Your task to perform on an android device: check data usage Image 0: 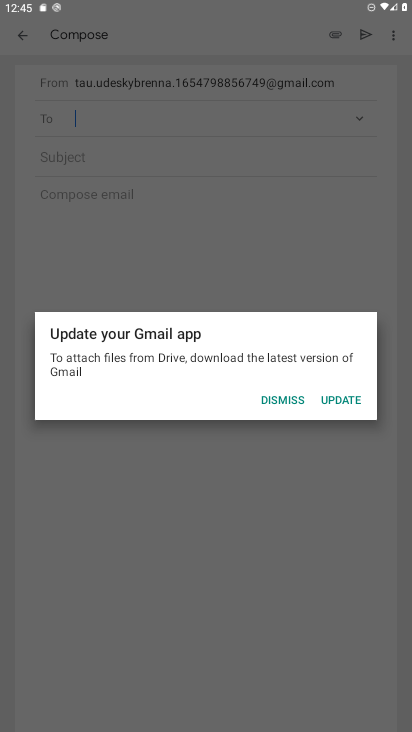
Step 0: press home button
Your task to perform on an android device: check data usage Image 1: 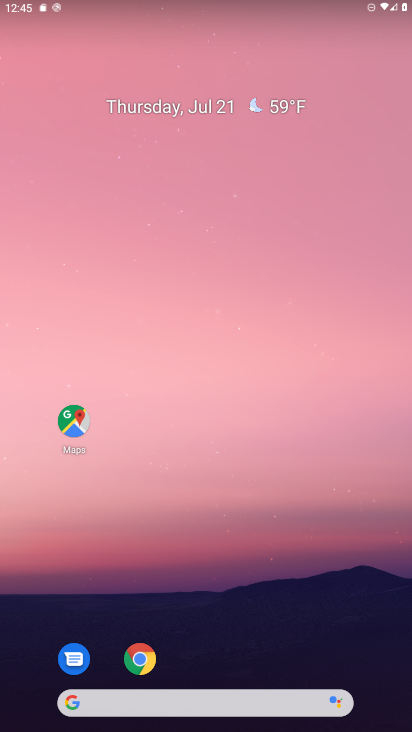
Step 1: drag from (22, 678) to (336, 105)
Your task to perform on an android device: check data usage Image 2: 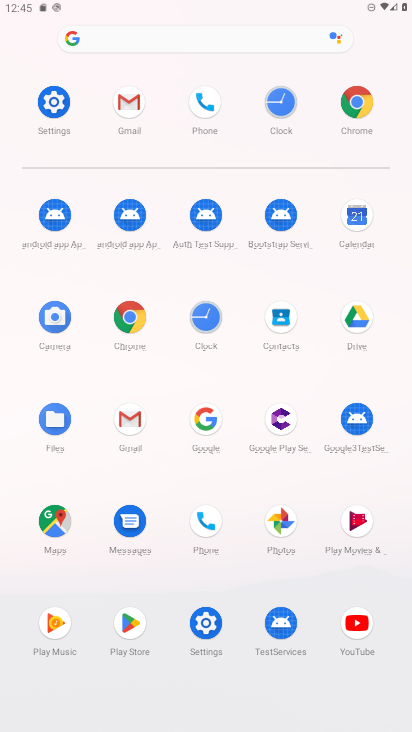
Step 2: click (59, 122)
Your task to perform on an android device: check data usage Image 3: 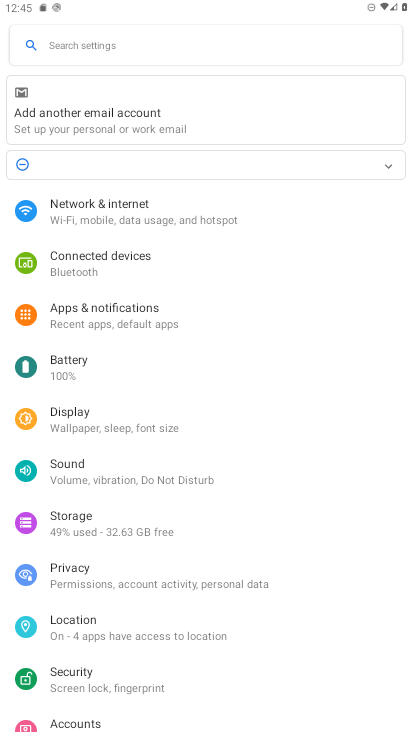
Step 3: click (145, 212)
Your task to perform on an android device: check data usage Image 4: 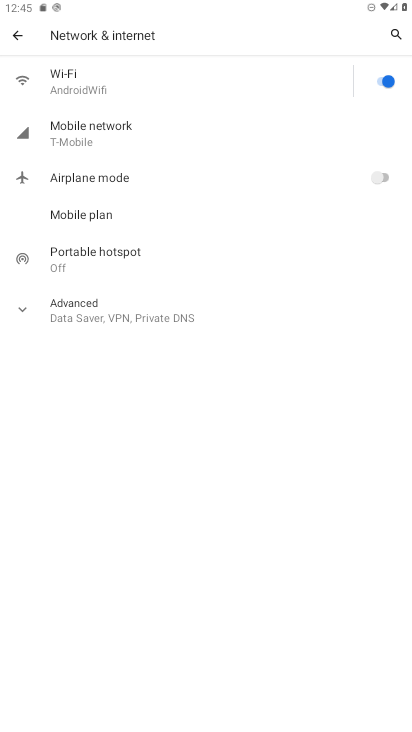
Step 4: click (122, 139)
Your task to perform on an android device: check data usage Image 5: 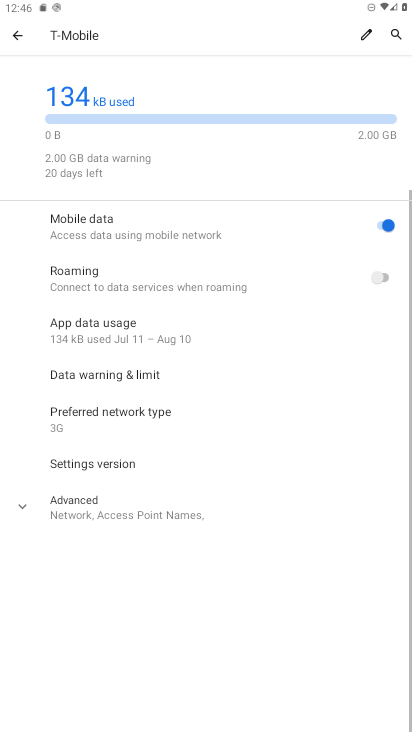
Step 5: click (131, 120)
Your task to perform on an android device: check data usage Image 6: 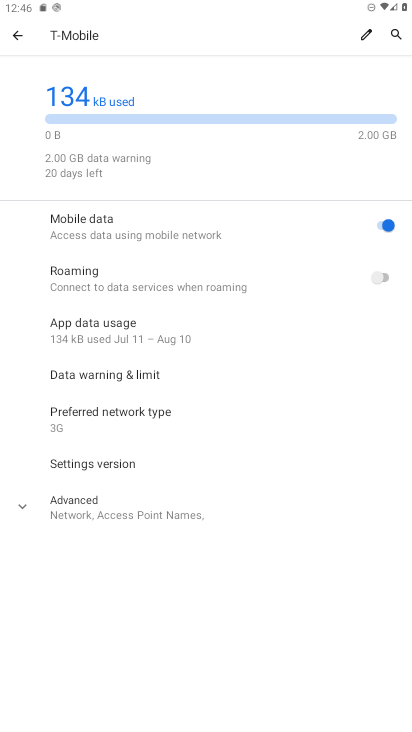
Step 6: task complete